Your task to perform on an android device: Show me recent news Image 0: 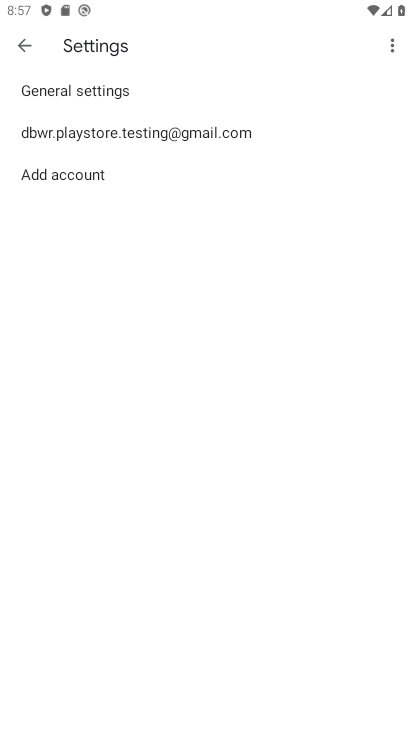
Step 0: press home button
Your task to perform on an android device: Show me recent news Image 1: 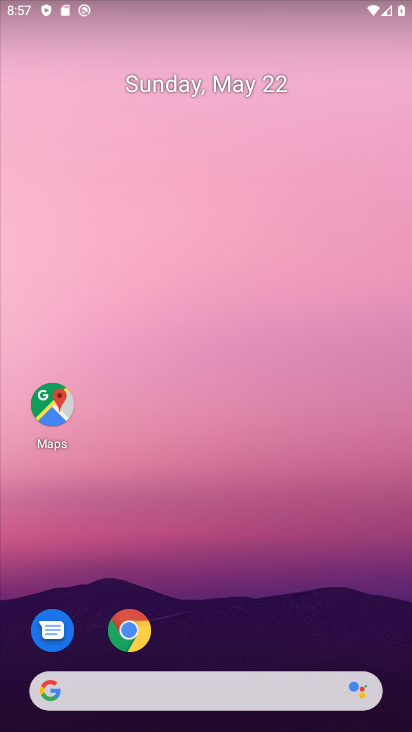
Step 1: task complete